Your task to perform on an android device: Turn on the flashlight Image 0: 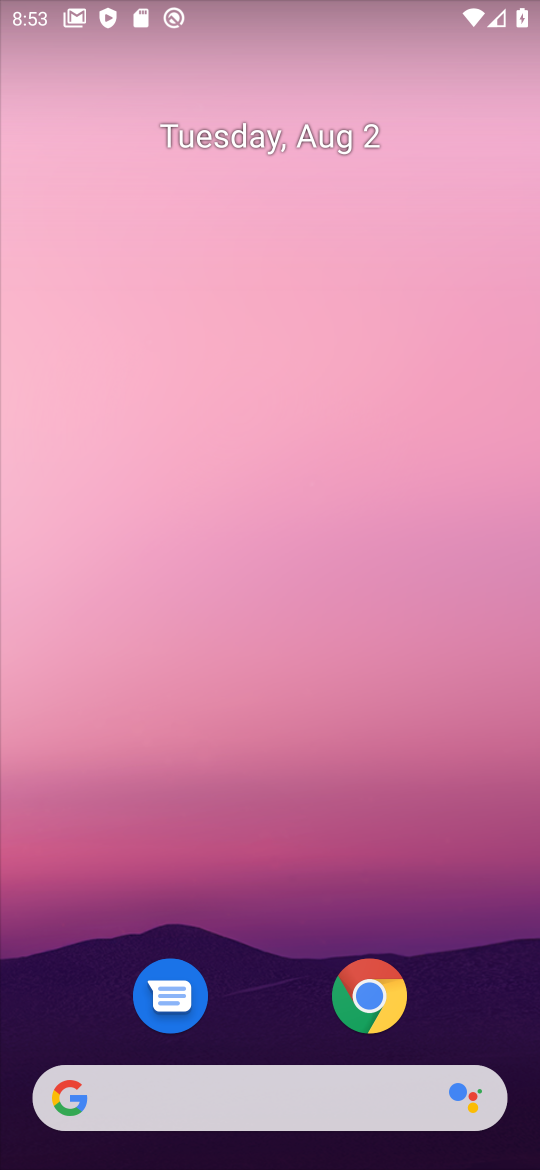
Step 0: drag from (311, 10) to (272, 928)
Your task to perform on an android device: Turn on the flashlight Image 1: 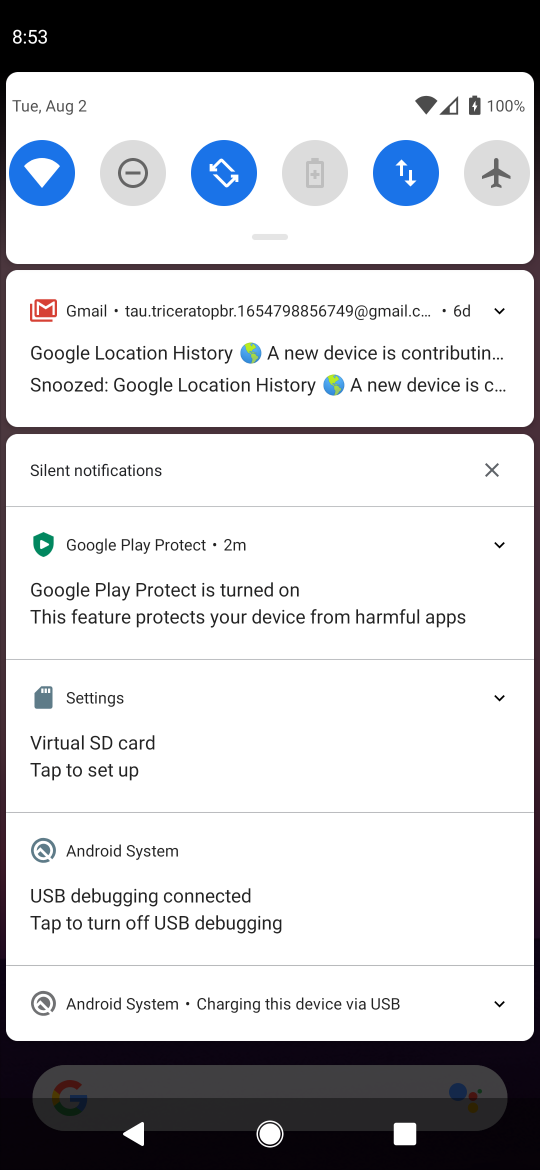
Step 1: task complete